Your task to perform on an android device: change notifications settings Image 0: 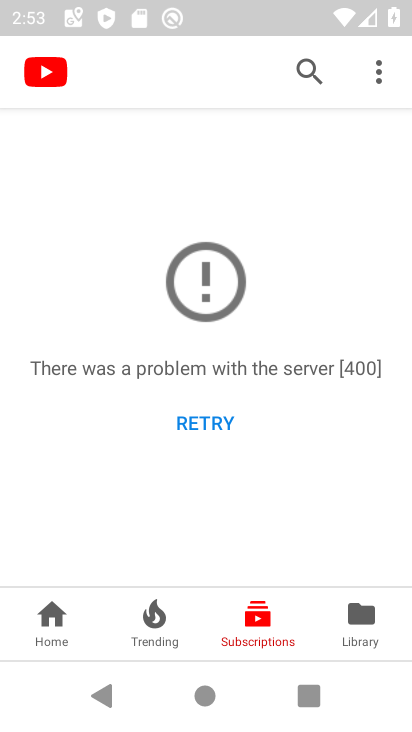
Step 0: press home button
Your task to perform on an android device: change notifications settings Image 1: 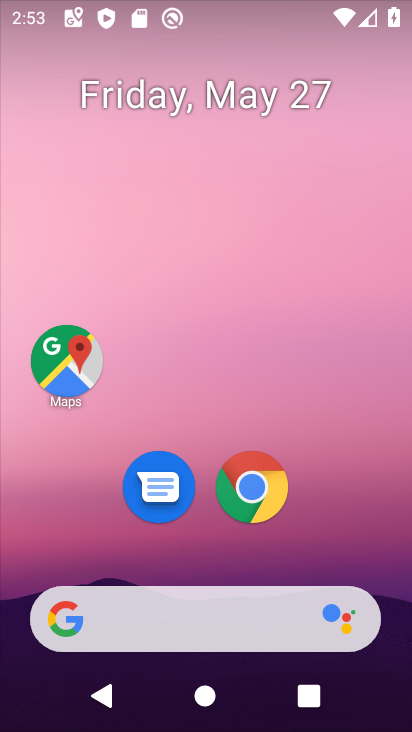
Step 1: drag from (157, 725) to (145, 92)
Your task to perform on an android device: change notifications settings Image 2: 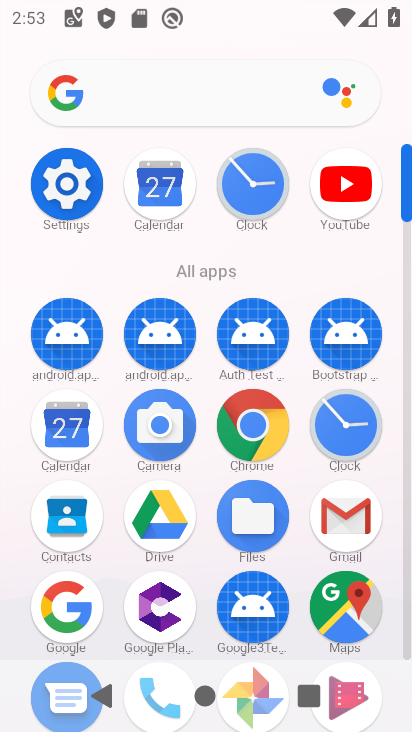
Step 2: click (62, 199)
Your task to perform on an android device: change notifications settings Image 3: 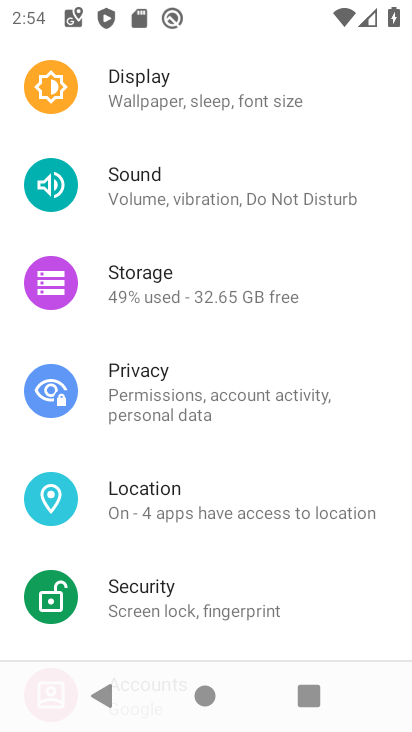
Step 3: drag from (251, 147) to (297, 654)
Your task to perform on an android device: change notifications settings Image 4: 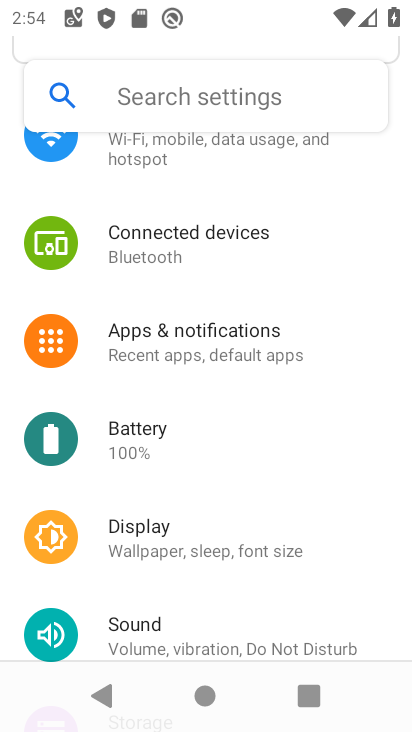
Step 4: click (254, 356)
Your task to perform on an android device: change notifications settings Image 5: 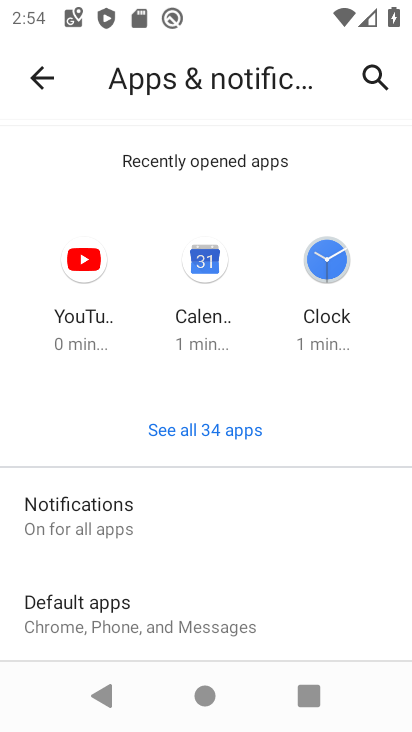
Step 5: drag from (172, 559) to (167, 373)
Your task to perform on an android device: change notifications settings Image 6: 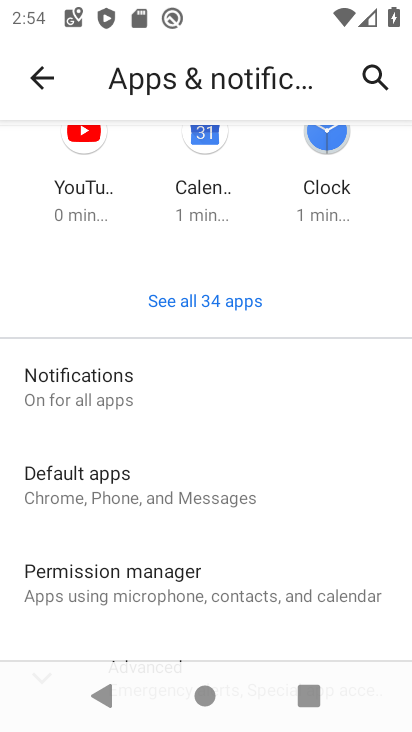
Step 6: click (104, 410)
Your task to perform on an android device: change notifications settings Image 7: 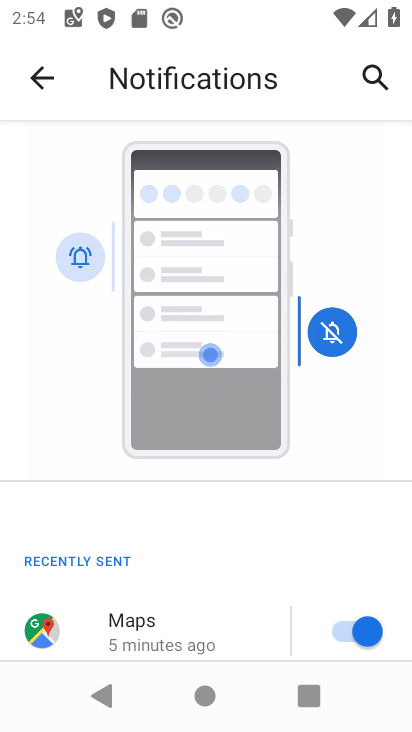
Step 7: click (369, 638)
Your task to perform on an android device: change notifications settings Image 8: 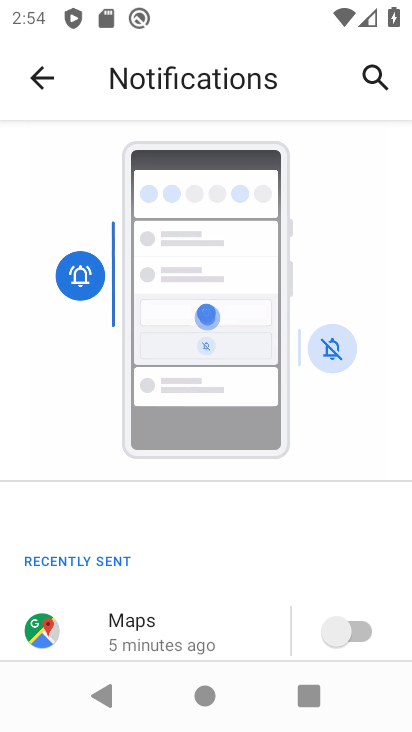
Step 8: task complete